Your task to perform on an android device: delete location history Image 0: 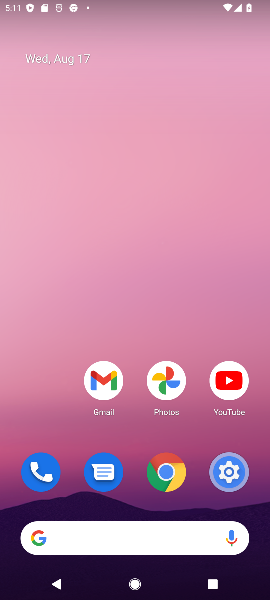
Step 0: drag from (131, 433) to (155, 42)
Your task to perform on an android device: delete location history Image 1: 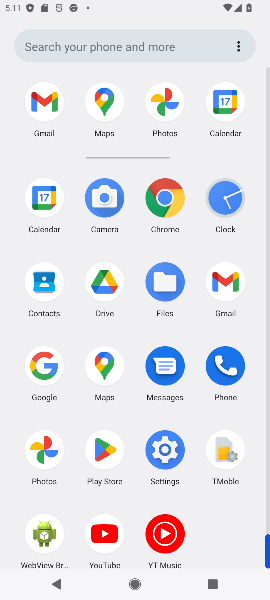
Step 1: click (114, 103)
Your task to perform on an android device: delete location history Image 2: 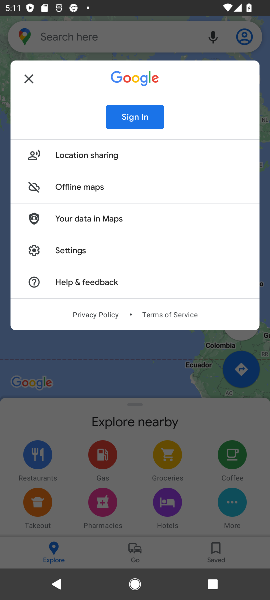
Step 2: click (62, 254)
Your task to perform on an android device: delete location history Image 3: 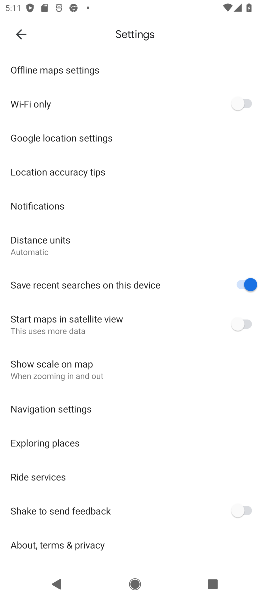
Step 3: click (110, 541)
Your task to perform on an android device: delete location history Image 4: 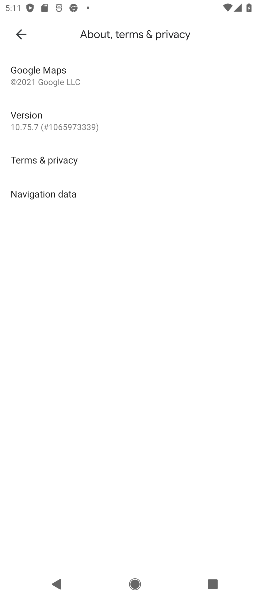
Step 4: click (13, 26)
Your task to perform on an android device: delete location history Image 5: 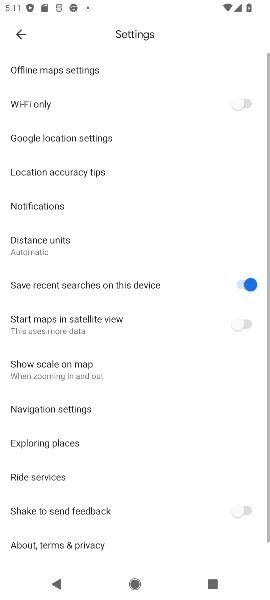
Step 5: click (19, 30)
Your task to perform on an android device: delete location history Image 6: 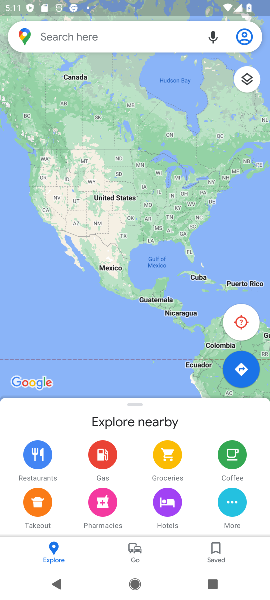
Step 6: click (251, 43)
Your task to perform on an android device: delete location history Image 7: 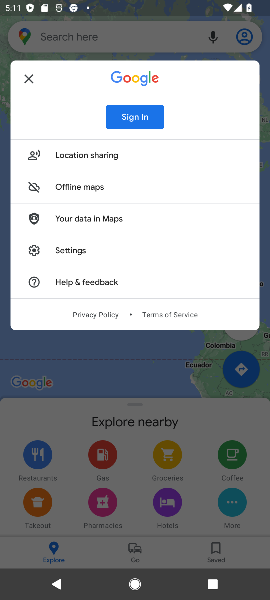
Step 7: click (101, 332)
Your task to perform on an android device: delete location history Image 8: 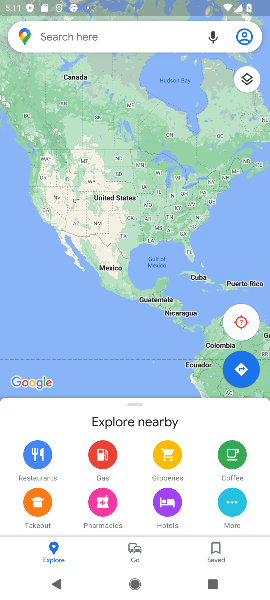
Step 8: click (19, 39)
Your task to perform on an android device: delete location history Image 9: 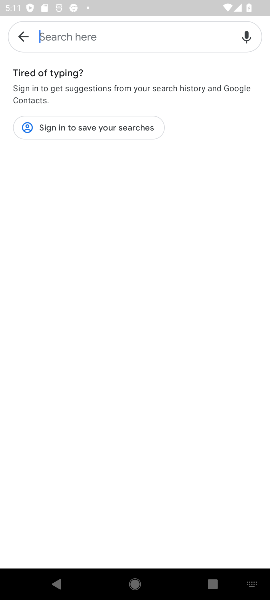
Step 9: click (16, 40)
Your task to perform on an android device: delete location history Image 10: 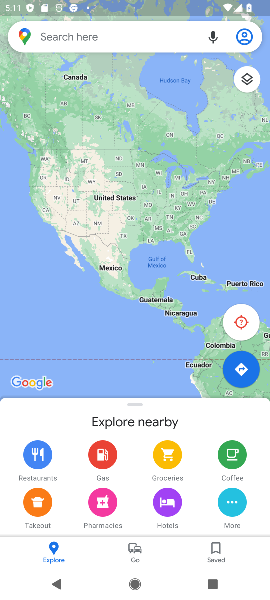
Step 10: click (247, 36)
Your task to perform on an android device: delete location history Image 11: 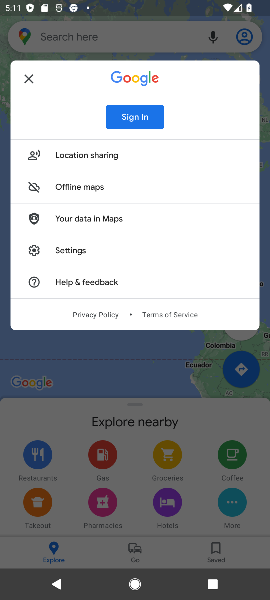
Step 11: click (101, 353)
Your task to perform on an android device: delete location history Image 12: 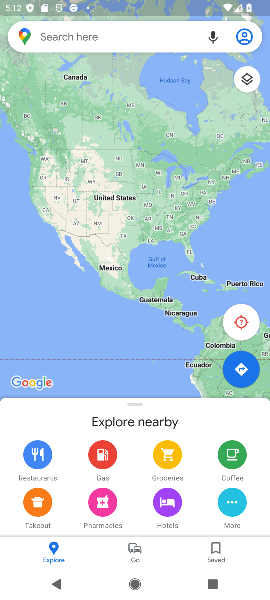
Step 12: click (234, 500)
Your task to perform on an android device: delete location history Image 13: 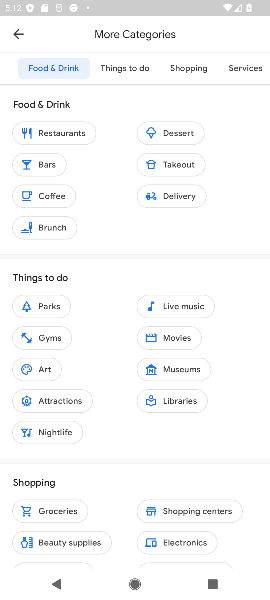
Step 13: task complete